Your task to perform on an android device: Open Chrome and go to the settings page Image 0: 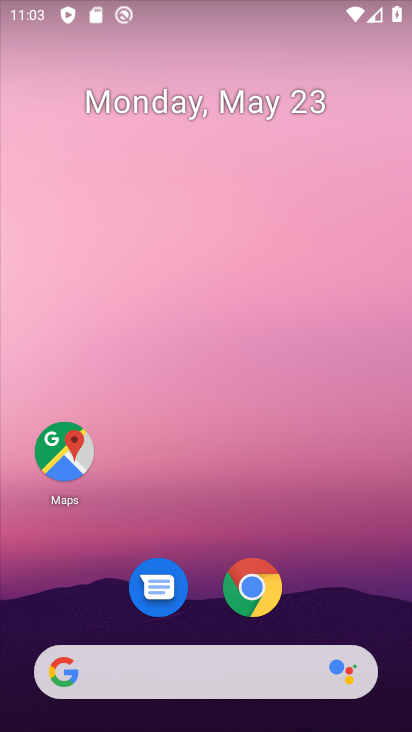
Step 0: click (266, 581)
Your task to perform on an android device: Open Chrome and go to the settings page Image 1: 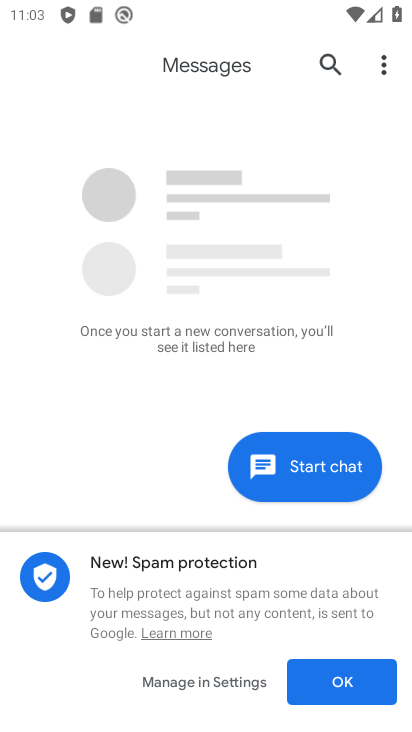
Step 1: press home button
Your task to perform on an android device: Open Chrome and go to the settings page Image 2: 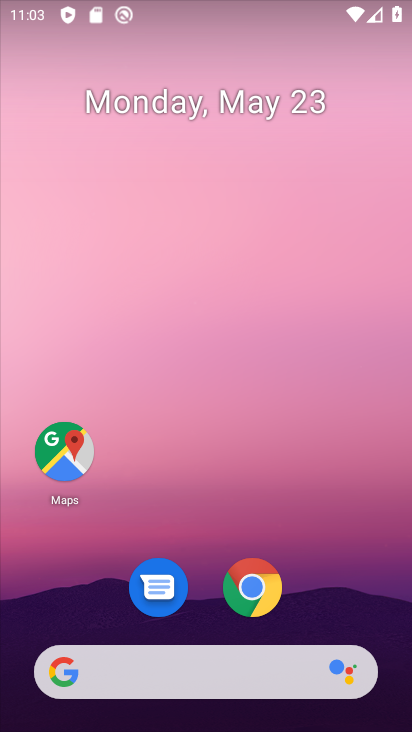
Step 2: click (255, 595)
Your task to perform on an android device: Open Chrome and go to the settings page Image 3: 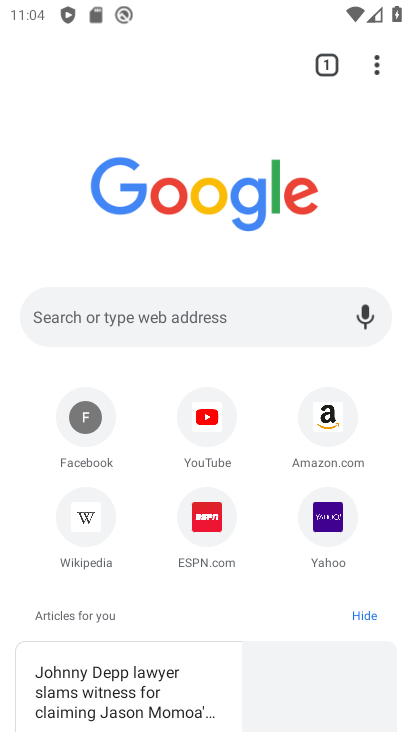
Step 3: click (385, 64)
Your task to perform on an android device: Open Chrome and go to the settings page Image 4: 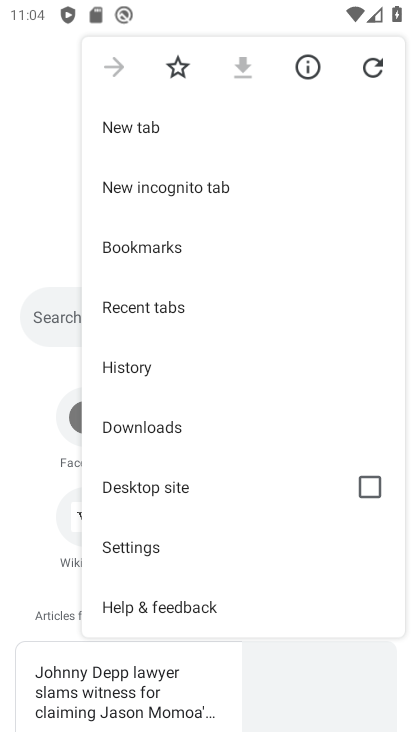
Step 4: click (244, 554)
Your task to perform on an android device: Open Chrome and go to the settings page Image 5: 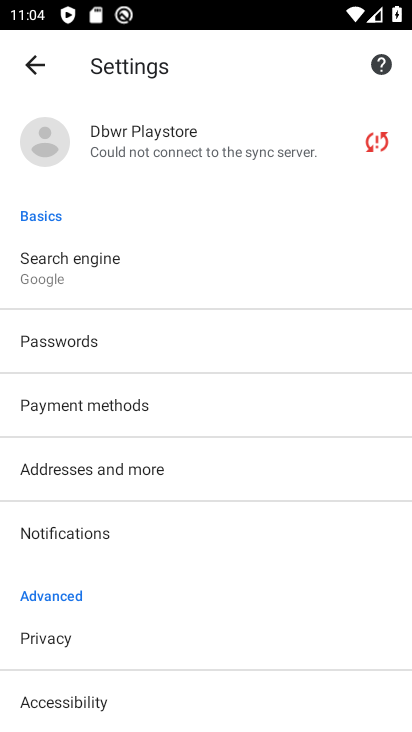
Step 5: task complete